Your task to perform on an android device: Go to Android settings Image 0: 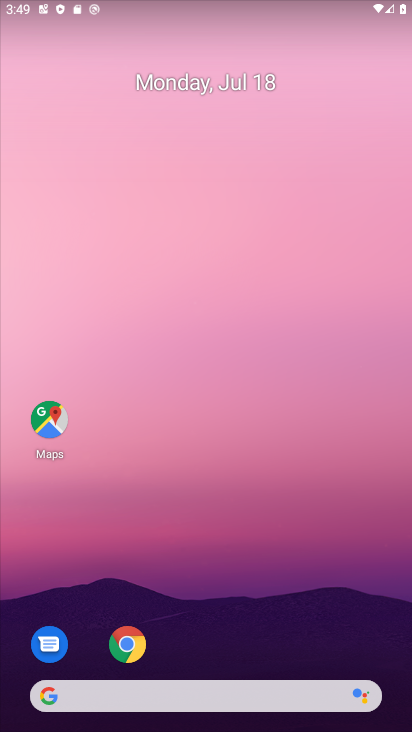
Step 0: drag from (368, 649) to (340, 32)
Your task to perform on an android device: Go to Android settings Image 1: 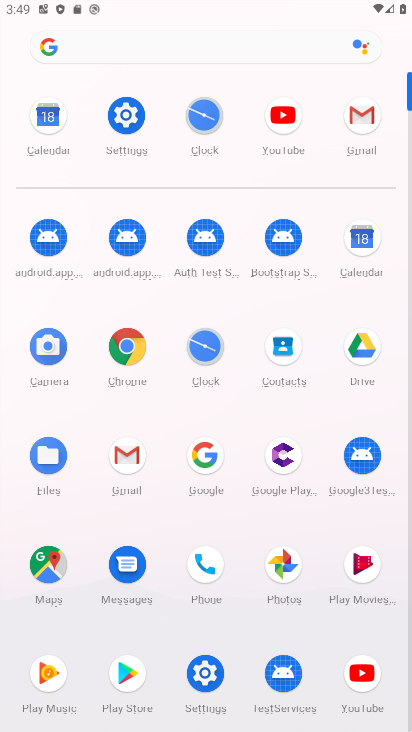
Step 1: click (204, 674)
Your task to perform on an android device: Go to Android settings Image 2: 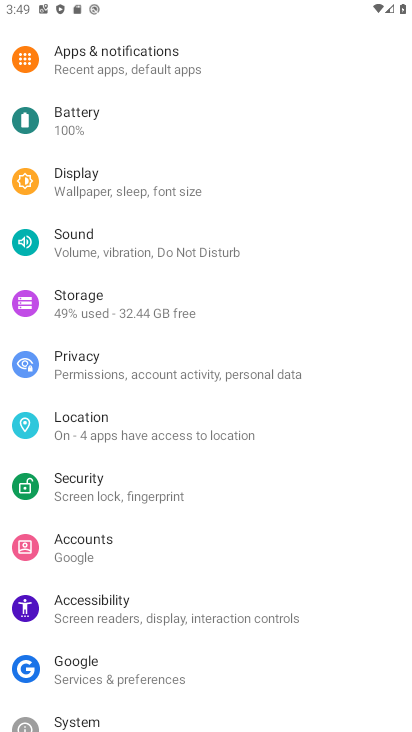
Step 2: drag from (311, 642) to (326, 258)
Your task to perform on an android device: Go to Android settings Image 3: 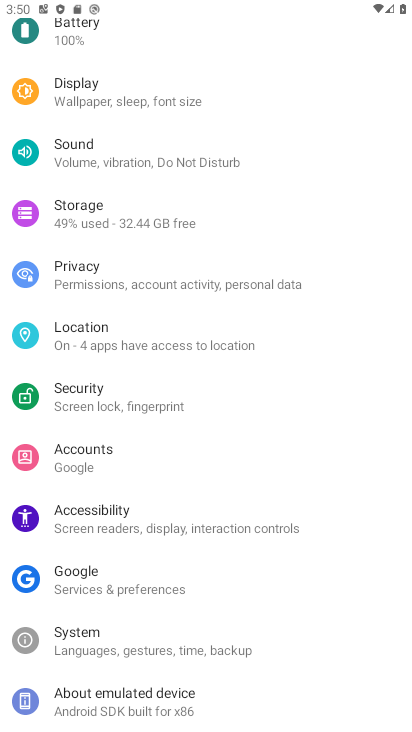
Step 3: click (88, 695)
Your task to perform on an android device: Go to Android settings Image 4: 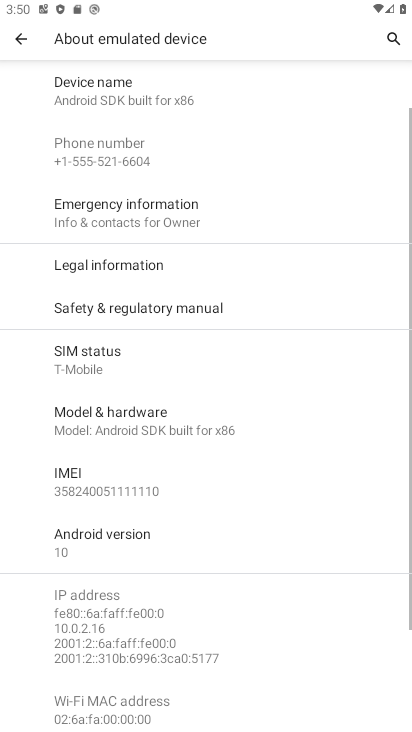
Step 4: task complete